Your task to perform on an android device: Turn on the flashlight Image 0: 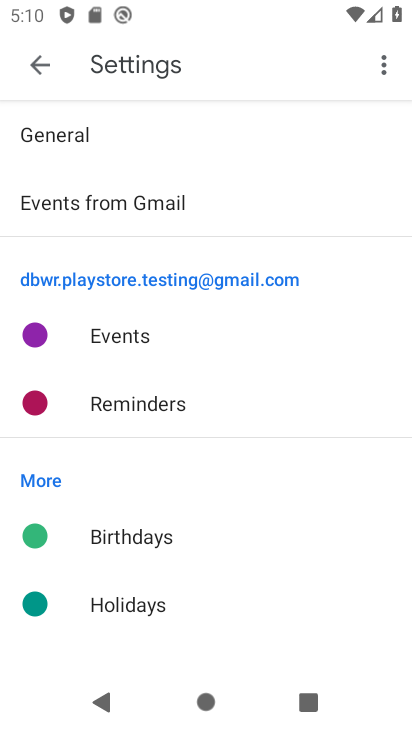
Step 0: press back button
Your task to perform on an android device: Turn on the flashlight Image 1: 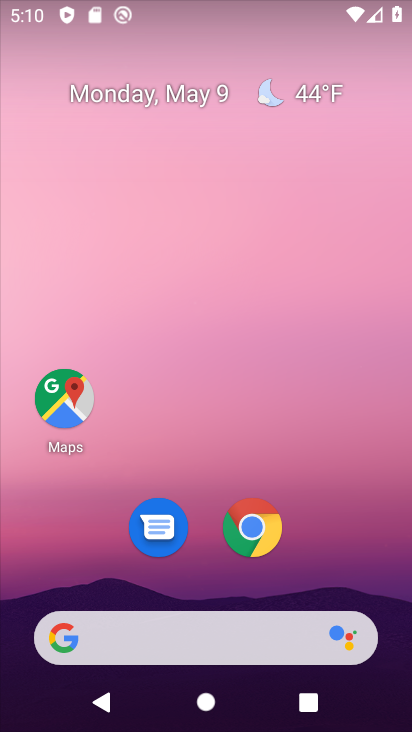
Step 1: drag from (317, 561) to (232, 5)
Your task to perform on an android device: Turn on the flashlight Image 2: 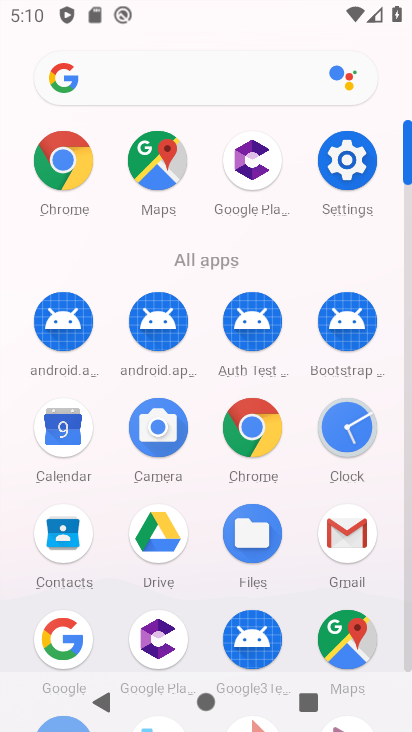
Step 2: drag from (13, 573) to (5, 253)
Your task to perform on an android device: Turn on the flashlight Image 3: 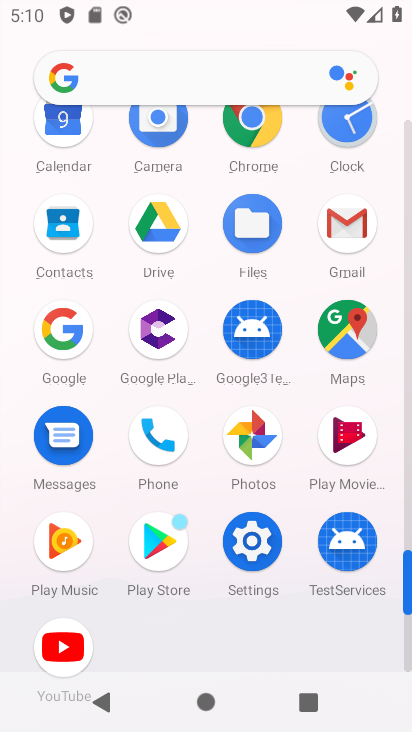
Step 3: click (254, 539)
Your task to perform on an android device: Turn on the flashlight Image 4: 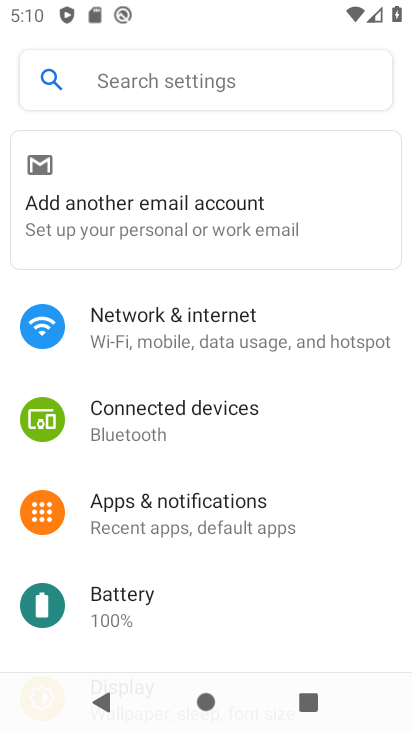
Step 4: drag from (305, 511) to (321, 123)
Your task to perform on an android device: Turn on the flashlight Image 5: 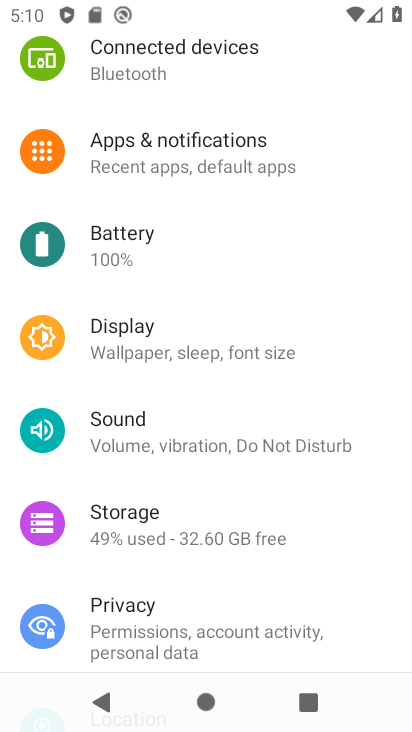
Step 5: drag from (315, 139) to (299, 421)
Your task to perform on an android device: Turn on the flashlight Image 6: 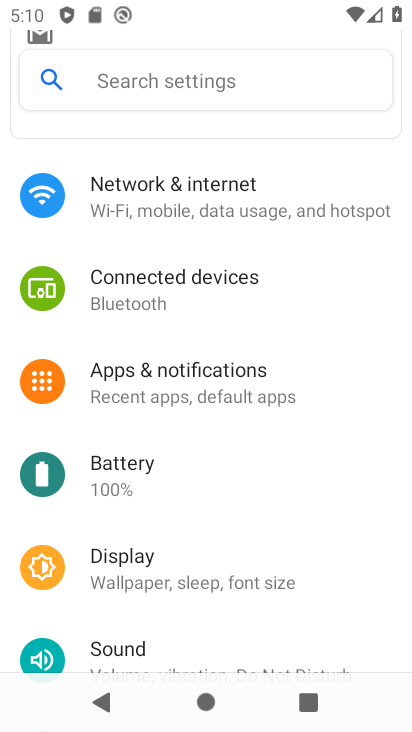
Step 6: drag from (338, 577) to (311, 209)
Your task to perform on an android device: Turn on the flashlight Image 7: 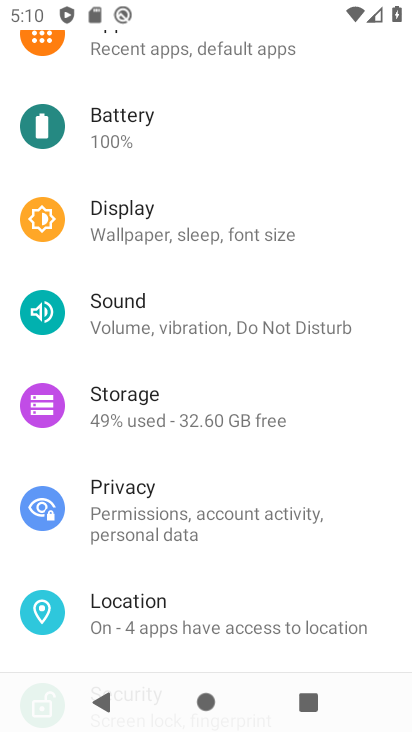
Step 7: drag from (300, 442) to (296, 55)
Your task to perform on an android device: Turn on the flashlight Image 8: 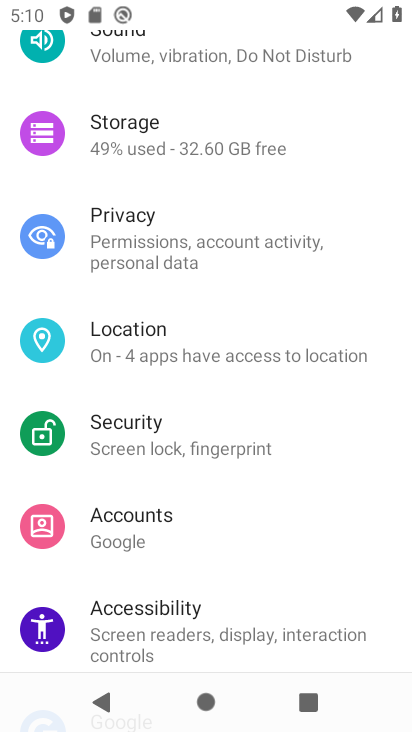
Step 8: drag from (323, 401) to (310, 80)
Your task to perform on an android device: Turn on the flashlight Image 9: 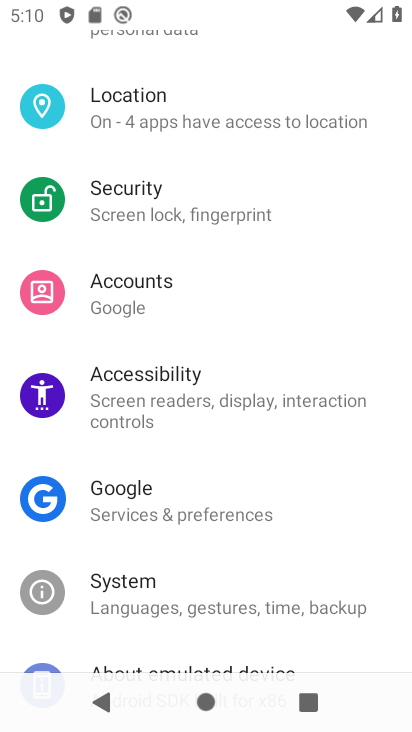
Step 9: drag from (316, 493) to (331, 81)
Your task to perform on an android device: Turn on the flashlight Image 10: 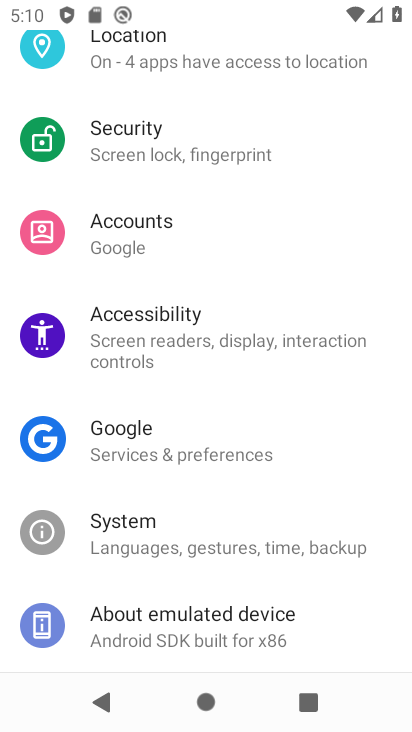
Step 10: drag from (334, 491) to (347, 127)
Your task to perform on an android device: Turn on the flashlight Image 11: 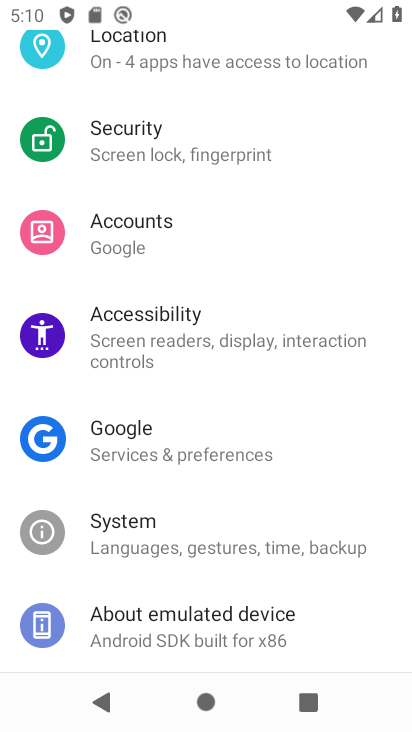
Step 11: drag from (307, 528) to (329, 108)
Your task to perform on an android device: Turn on the flashlight Image 12: 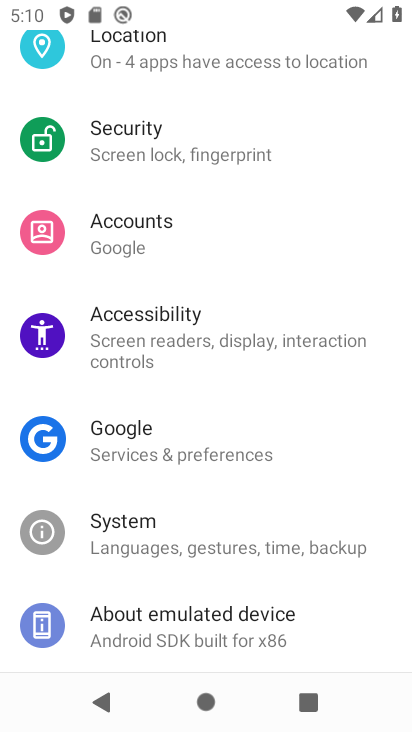
Step 12: drag from (307, 152) to (302, 566)
Your task to perform on an android device: Turn on the flashlight Image 13: 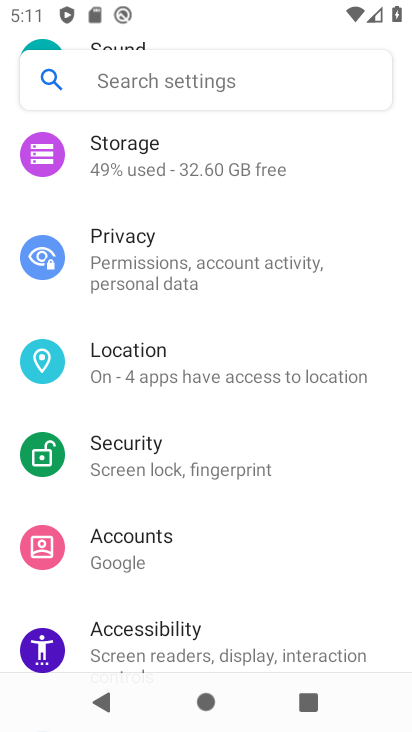
Step 13: drag from (264, 253) to (248, 633)
Your task to perform on an android device: Turn on the flashlight Image 14: 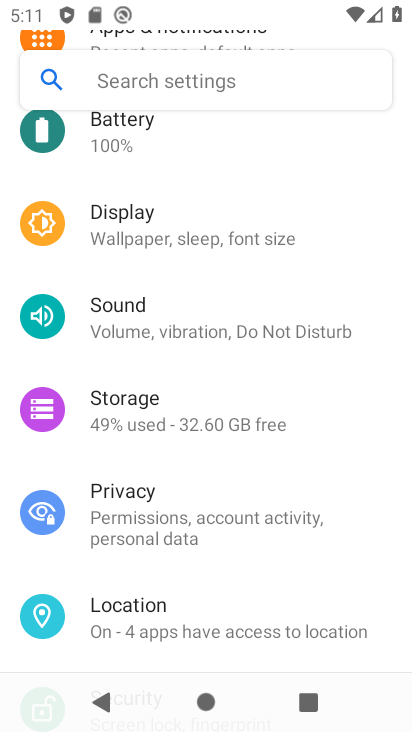
Step 14: drag from (259, 269) to (267, 517)
Your task to perform on an android device: Turn on the flashlight Image 15: 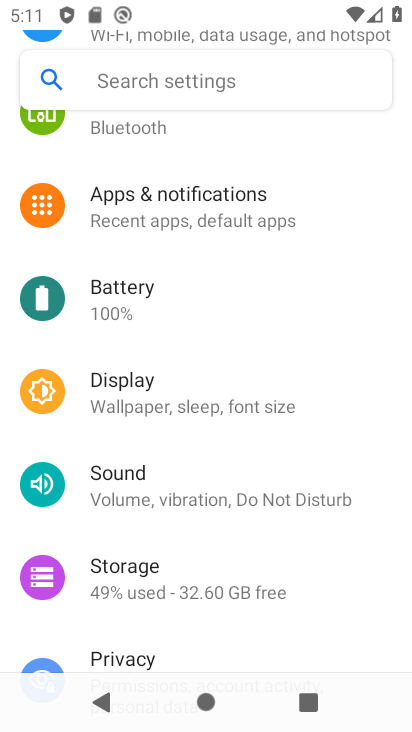
Step 15: drag from (228, 199) to (249, 581)
Your task to perform on an android device: Turn on the flashlight Image 16: 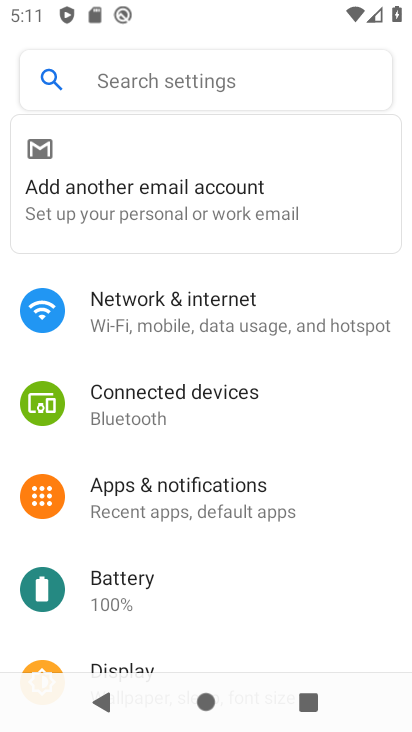
Step 16: click (223, 314)
Your task to perform on an android device: Turn on the flashlight Image 17: 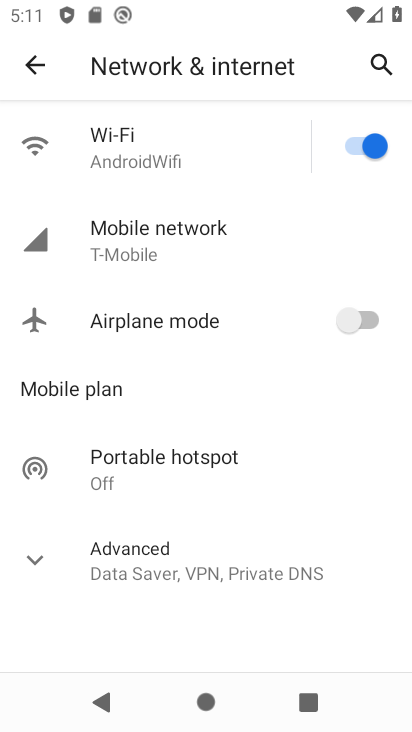
Step 17: click (48, 574)
Your task to perform on an android device: Turn on the flashlight Image 18: 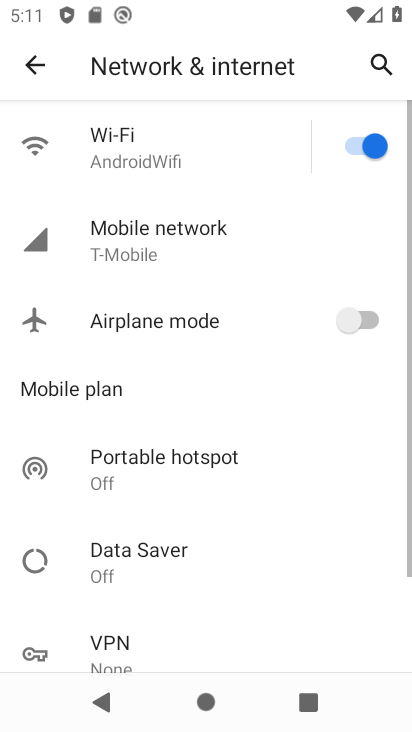
Step 18: drag from (280, 613) to (286, 134)
Your task to perform on an android device: Turn on the flashlight Image 19: 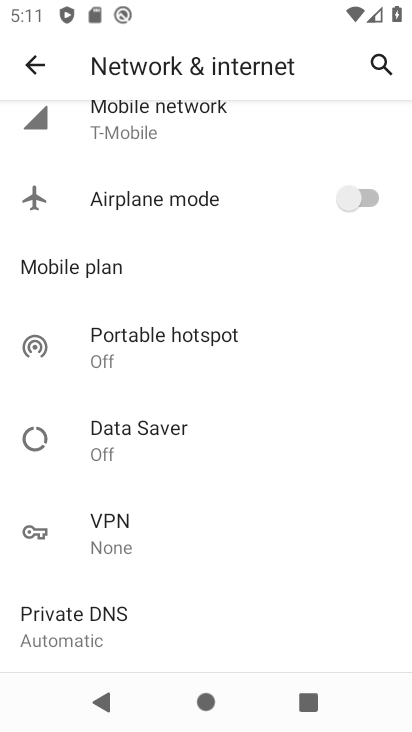
Step 19: drag from (230, 143) to (241, 598)
Your task to perform on an android device: Turn on the flashlight Image 20: 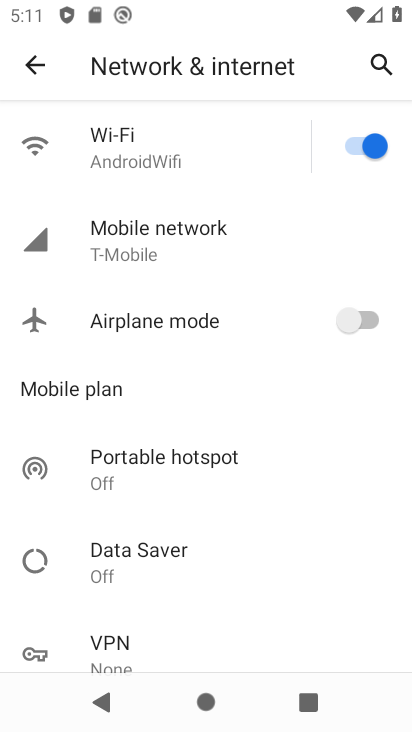
Step 20: click (40, 67)
Your task to perform on an android device: Turn on the flashlight Image 21: 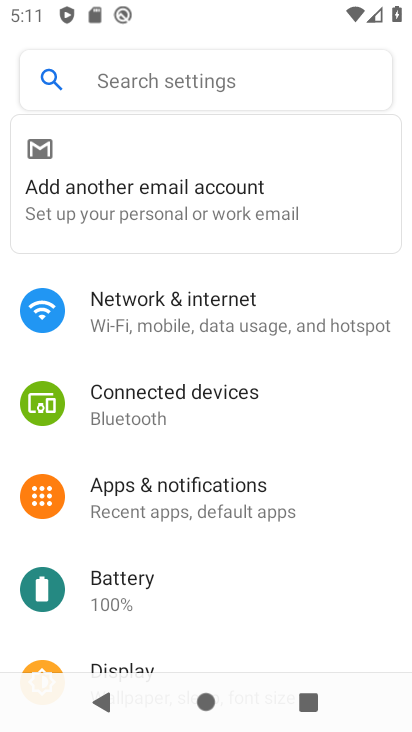
Step 21: click (248, 323)
Your task to perform on an android device: Turn on the flashlight Image 22: 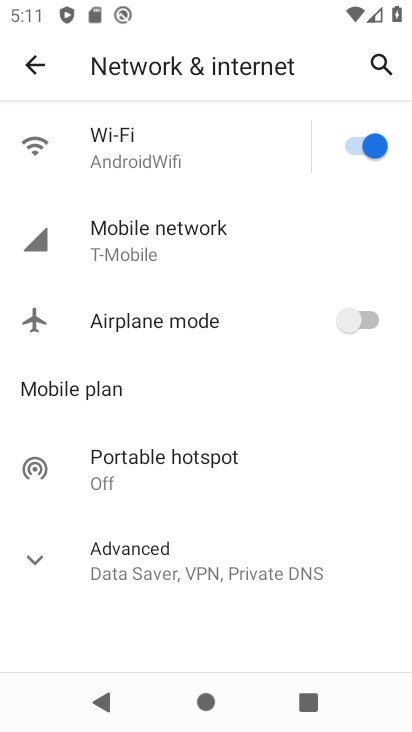
Step 22: task complete